Your task to perform on an android device: Do I have any events this weekend? Image 0: 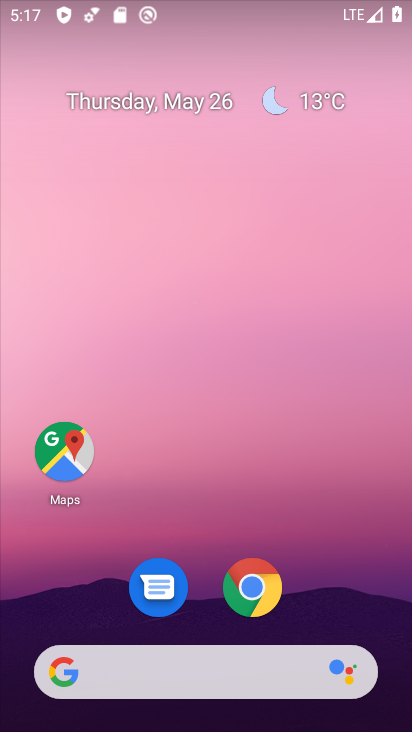
Step 0: drag from (218, 720) to (220, 64)
Your task to perform on an android device: Do I have any events this weekend? Image 1: 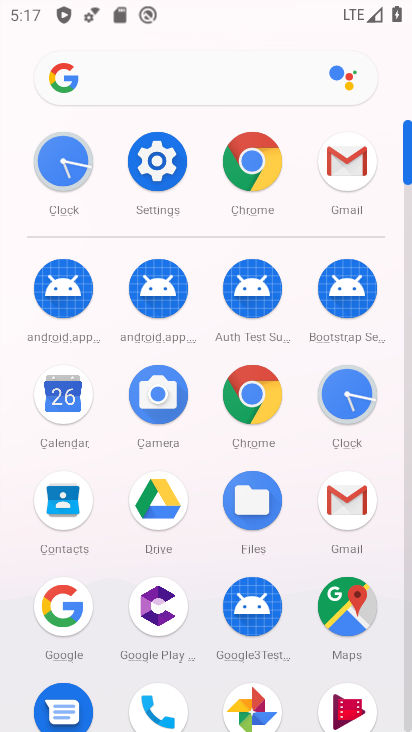
Step 1: click (68, 395)
Your task to perform on an android device: Do I have any events this weekend? Image 2: 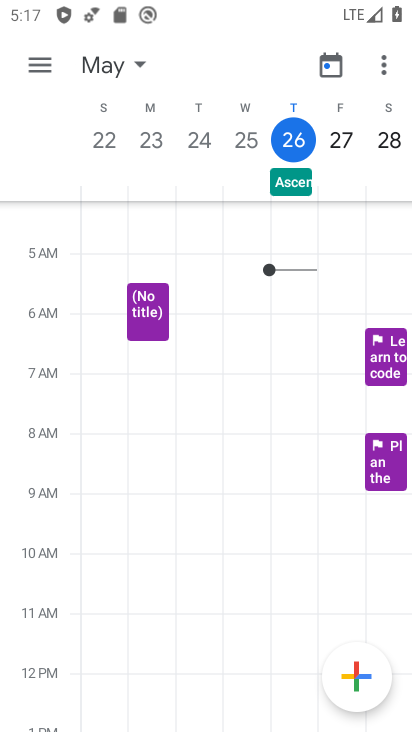
Step 2: click (42, 61)
Your task to perform on an android device: Do I have any events this weekend? Image 3: 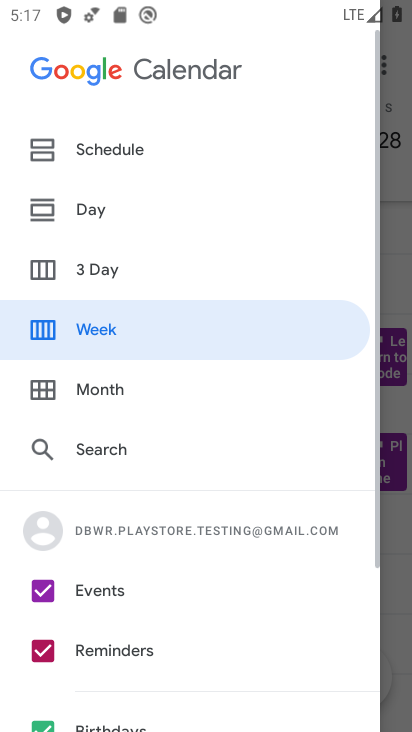
Step 3: drag from (111, 679) to (112, 466)
Your task to perform on an android device: Do I have any events this weekend? Image 4: 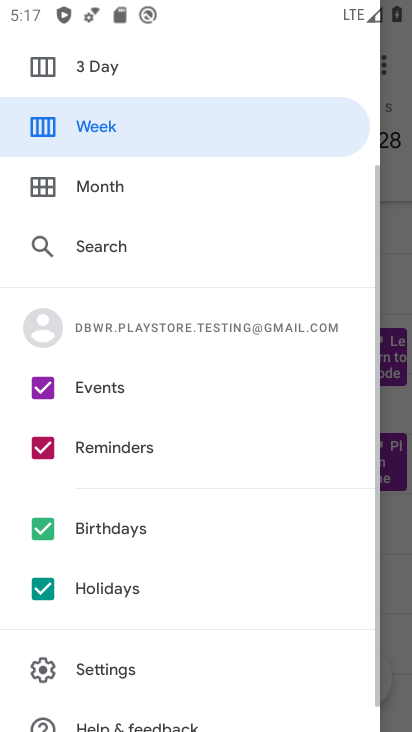
Step 4: click (40, 585)
Your task to perform on an android device: Do I have any events this weekend? Image 5: 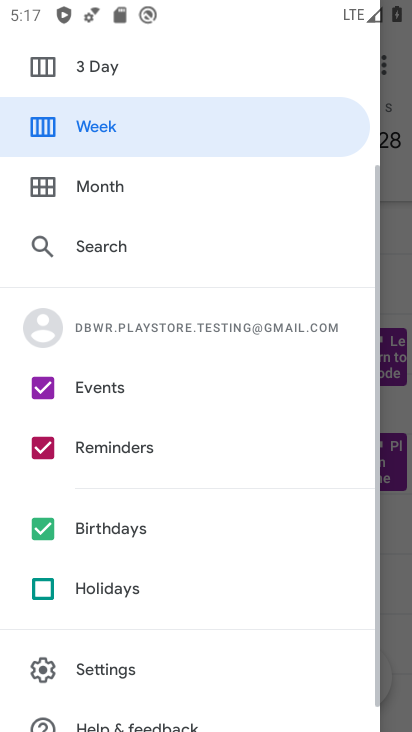
Step 5: click (45, 523)
Your task to perform on an android device: Do I have any events this weekend? Image 6: 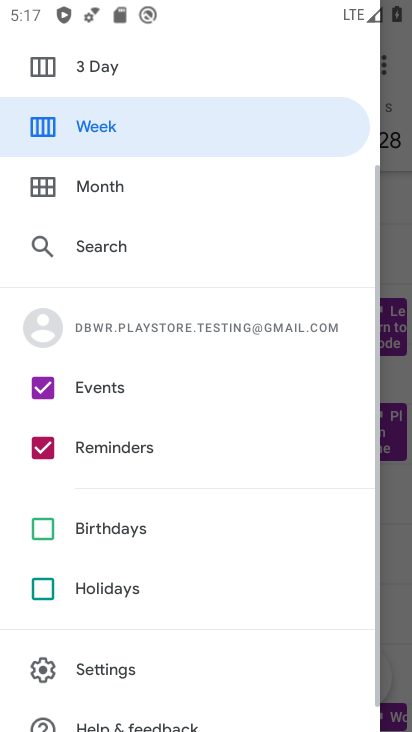
Step 6: click (45, 442)
Your task to perform on an android device: Do I have any events this weekend? Image 7: 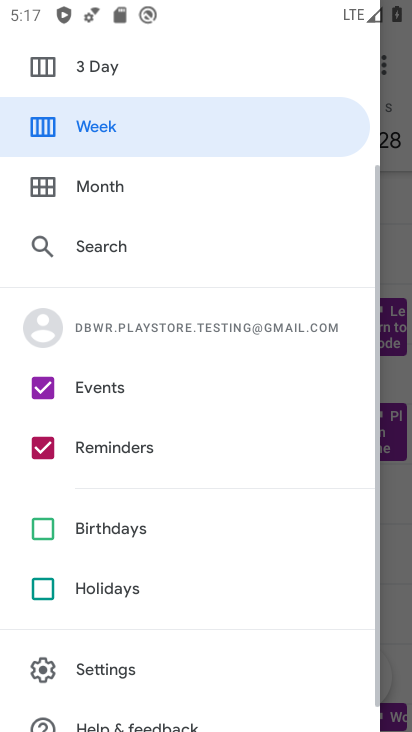
Step 7: click (41, 450)
Your task to perform on an android device: Do I have any events this weekend? Image 8: 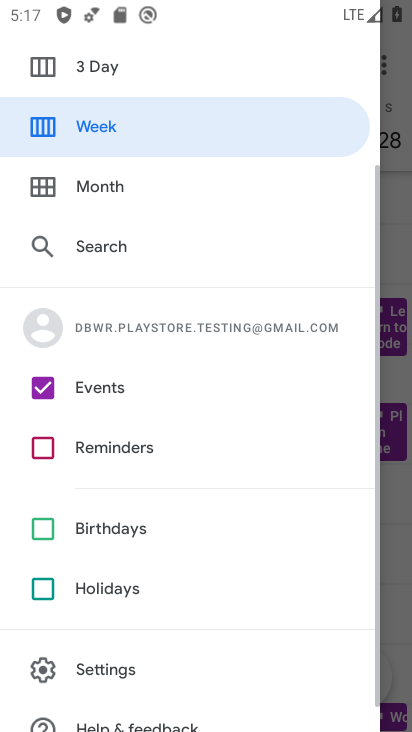
Step 8: click (160, 132)
Your task to perform on an android device: Do I have any events this weekend? Image 9: 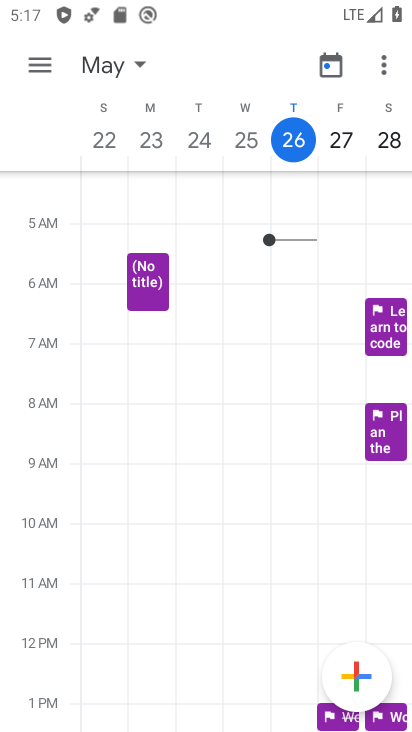
Step 9: click (382, 132)
Your task to perform on an android device: Do I have any events this weekend? Image 10: 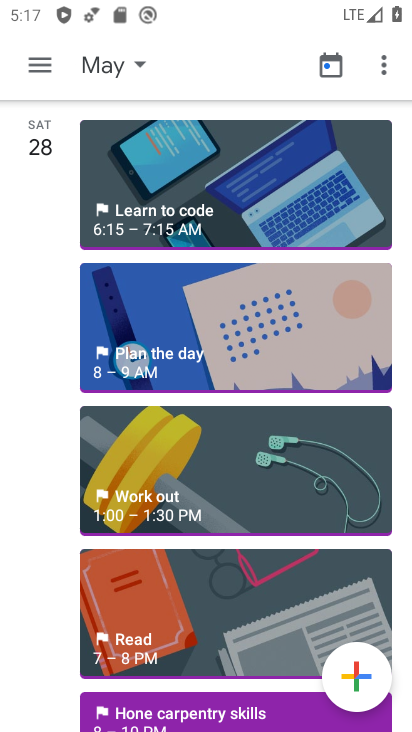
Step 10: task complete